Your task to perform on an android device: turn off picture-in-picture Image 0: 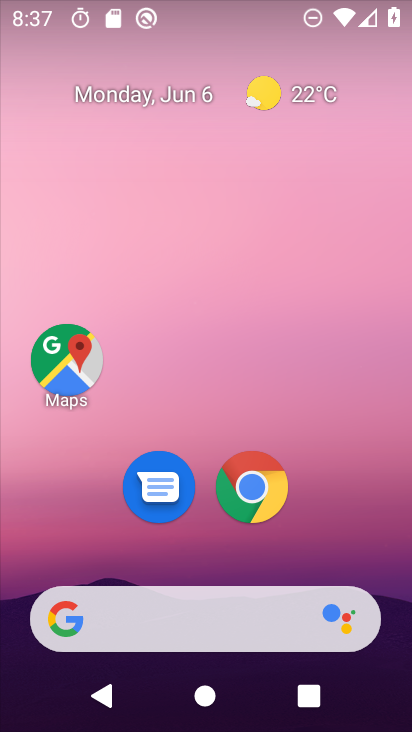
Step 0: drag from (392, 637) to (281, 83)
Your task to perform on an android device: turn off picture-in-picture Image 1: 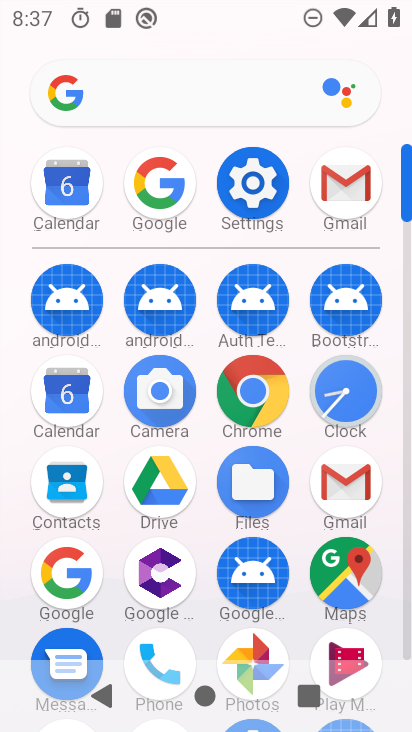
Step 1: click (254, 398)
Your task to perform on an android device: turn off picture-in-picture Image 2: 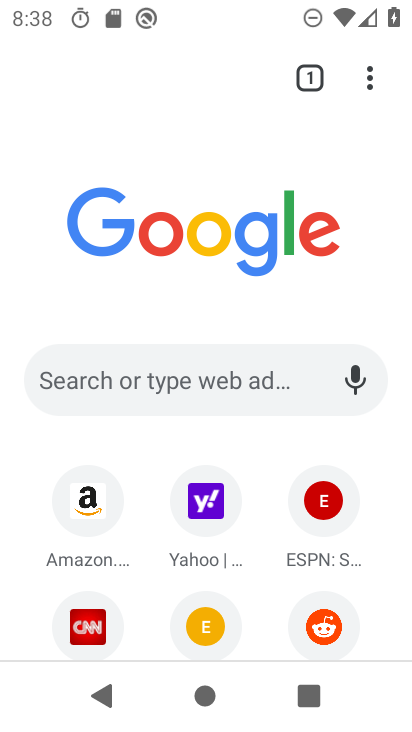
Step 2: task complete